Your task to perform on an android device: Do I have any events this weekend? Image 0: 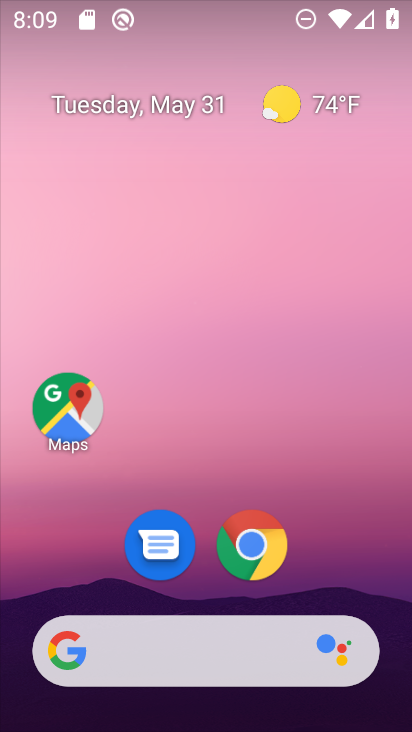
Step 0: drag from (337, 552) to (245, 26)
Your task to perform on an android device: Do I have any events this weekend? Image 1: 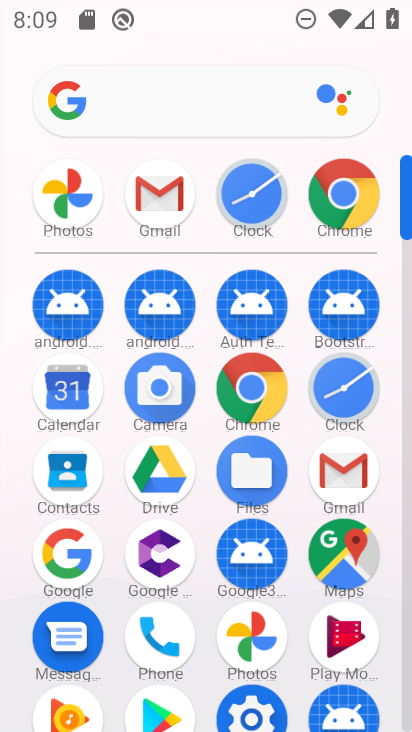
Step 1: drag from (9, 561) to (28, 161)
Your task to perform on an android device: Do I have any events this weekend? Image 2: 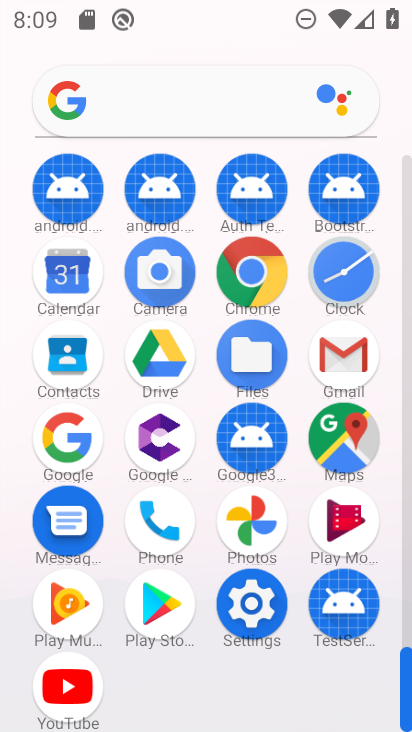
Step 2: click (64, 268)
Your task to perform on an android device: Do I have any events this weekend? Image 3: 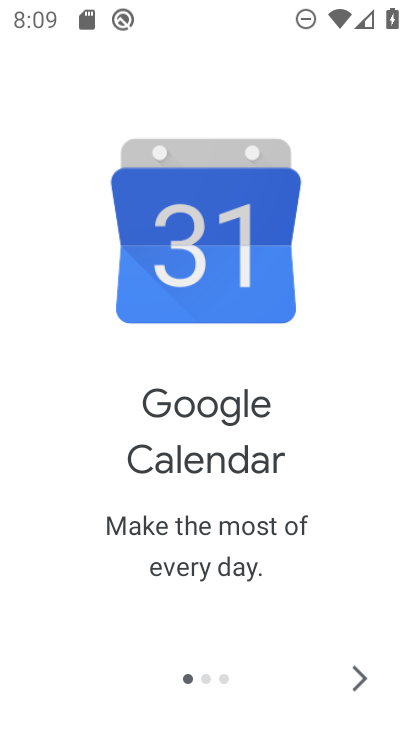
Step 3: click (360, 673)
Your task to perform on an android device: Do I have any events this weekend? Image 4: 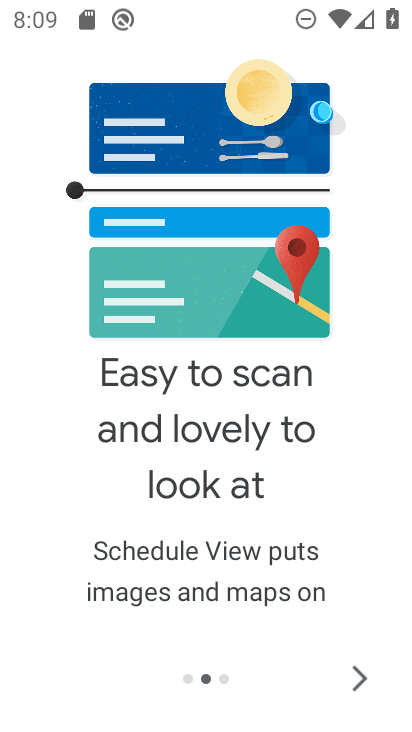
Step 4: click (360, 673)
Your task to perform on an android device: Do I have any events this weekend? Image 5: 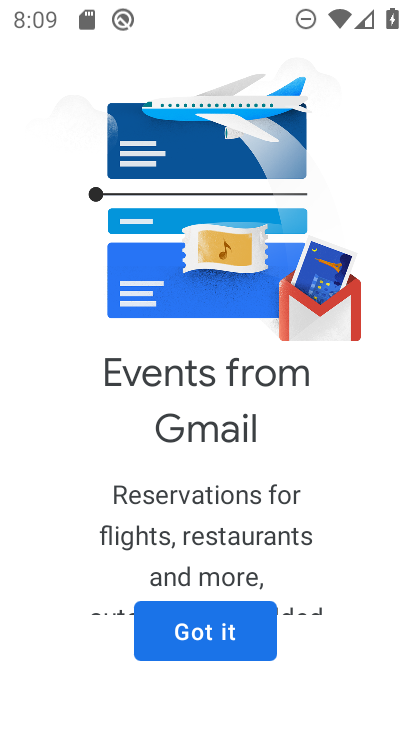
Step 5: click (261, 634)
Your task to perform on an android device: Do I have any events this weekend? Image 6: 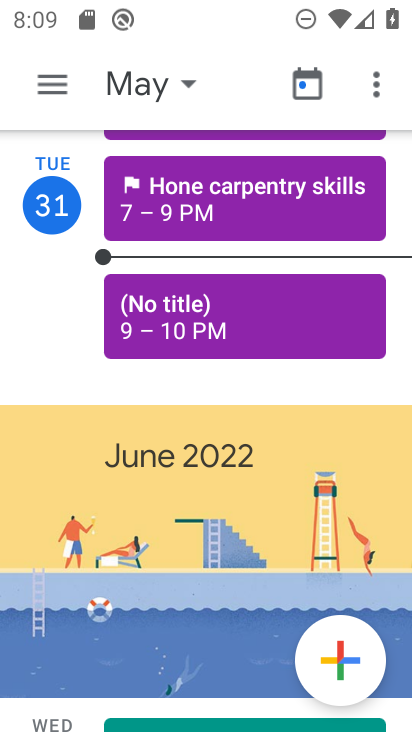
Step 6: click (141, 76)
Your task to perform on an android device: Do I have any events this weekend? Image 7: 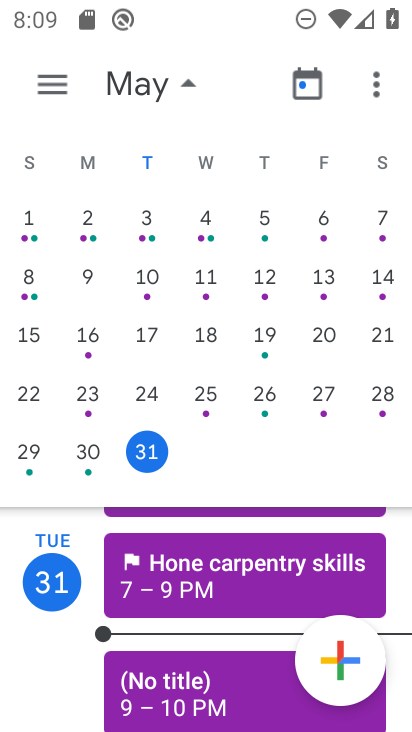
Step 7: click (149, 454)
Your task to perform on an android device: Do I have any events this weekend? Image 8: 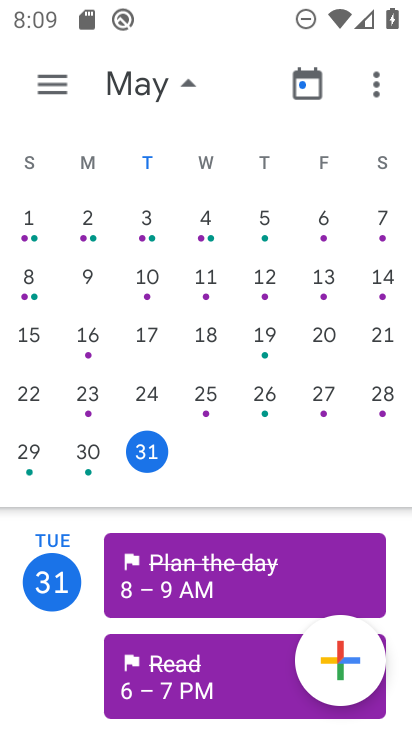
Step 8: click (42, 59)
Your task to perform on an android device: Do I have any events this weekend? Image 9: 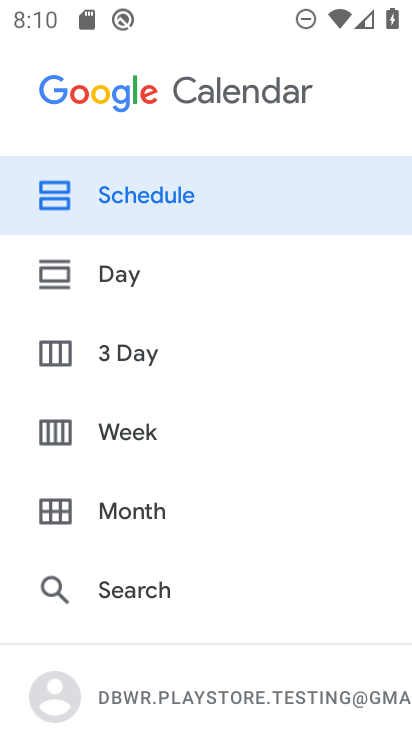
Step 9: click (133, 436)
Your task to perform on an android device: Do I have any events this weekend? Image 10: 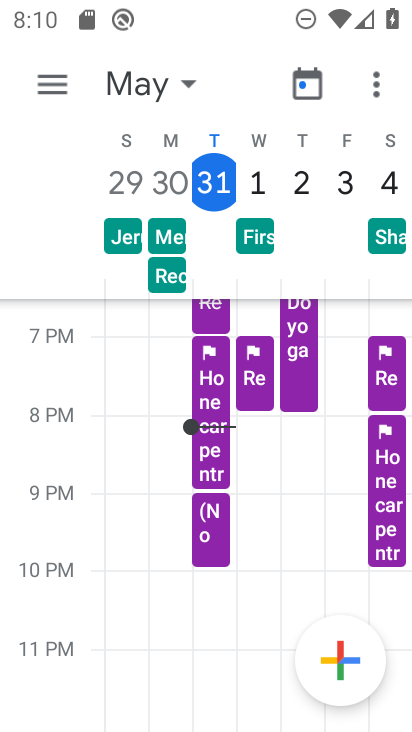
Step 10: click (380, 180)
Your task to perform on an android device: Do I have any events this weekend? Image 11: 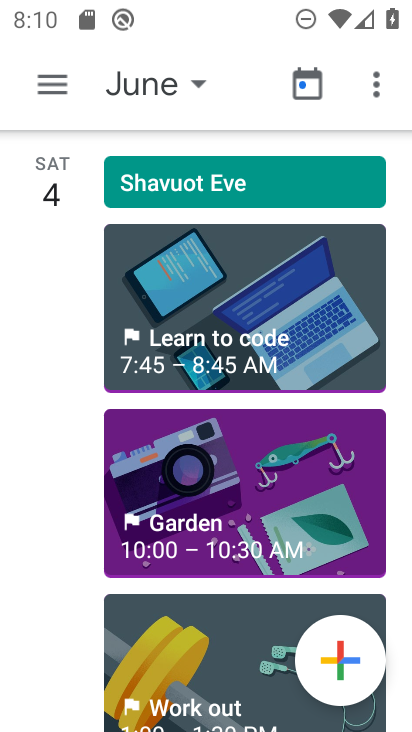
Step 11: task complete